Your task to perform on an android device: Play the last video I watched on Youtube Image 0: 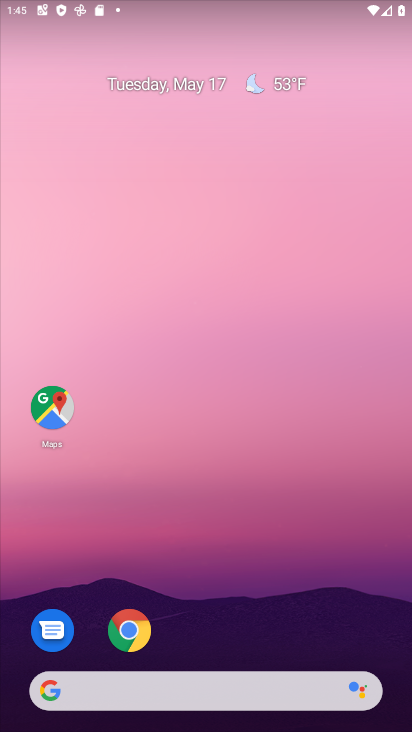
Step 0: drag from (157, 641) to (207, 243)
Your task to perform on an android device: Play the last video I watched on Youtube Image 1: 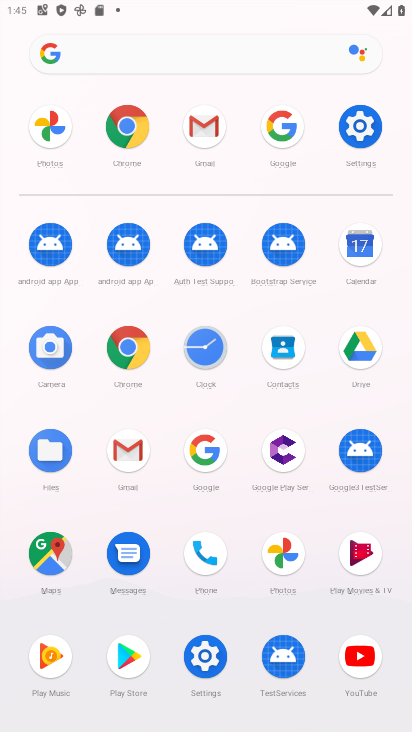
Step 1: click (358, 680)
Your task to perform on an android device: Play the last video I watched on Youtube Image 2: 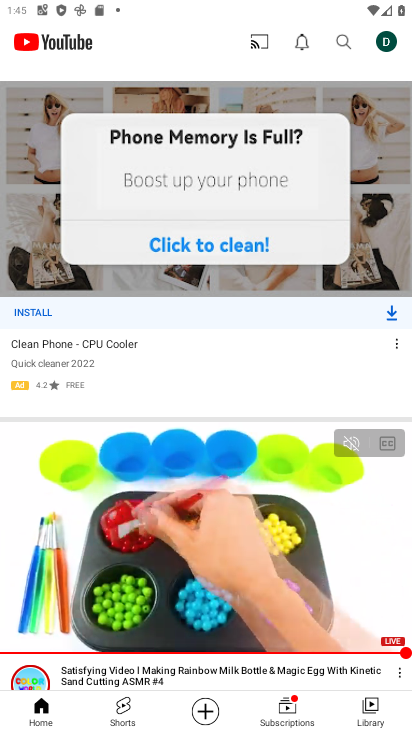
Step 2: click (379, 708)
Your task to perform on an android device: Play the last video I watched on Youtube Image 3: 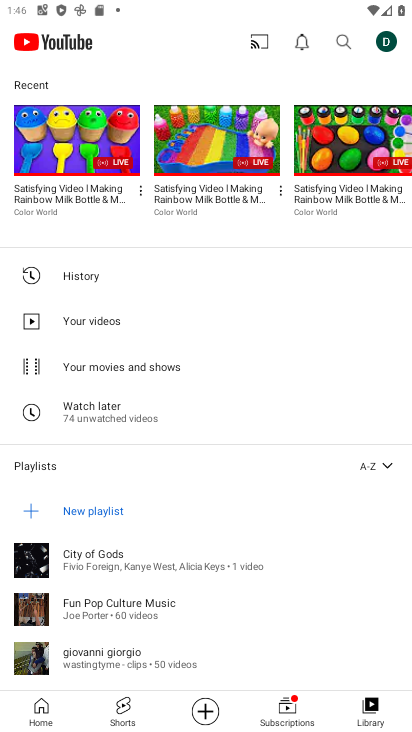
Step 3: click (74, 172)
Your task to perform on an android device: Play the last video I watched on Youtube Image 4: 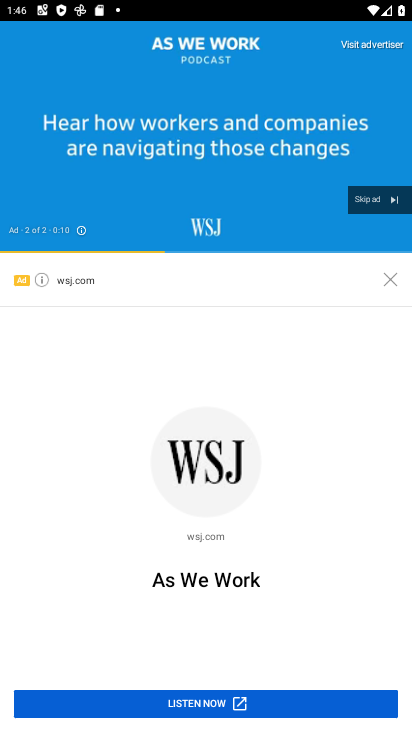
Step 4: click (389, 203)
Your task to perform on an android device: Play the last video I watched on Youtube Image 5: 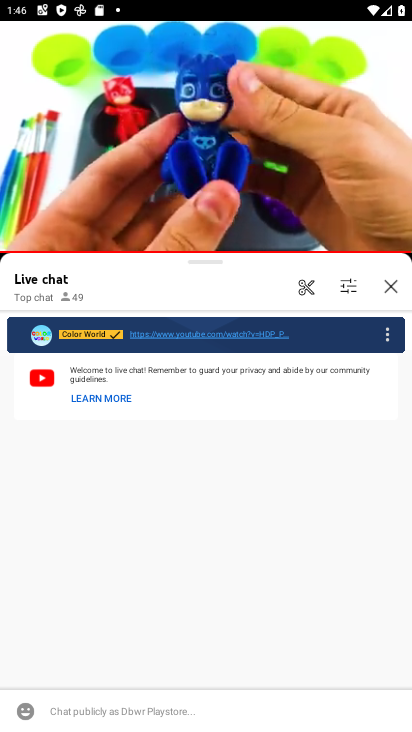
Step 5: task complete